Your task to perform on an android device: stop showing notifications on the lock screen Image 0: 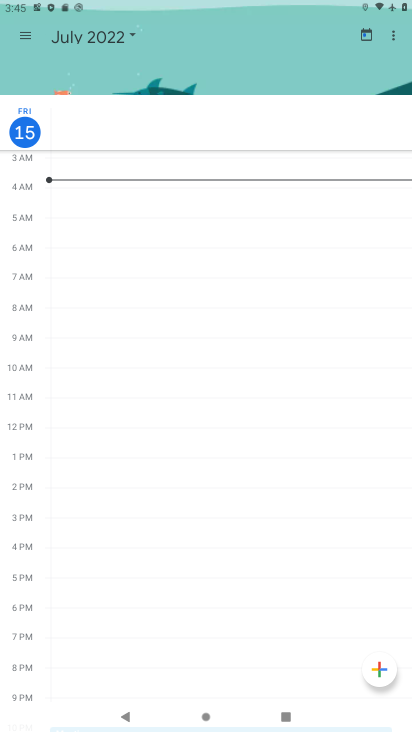
Step 0: drag from (215, 682) to (231, 302)
Your task to perform on an android device: stop showing notifications on the lock screen Image 1: 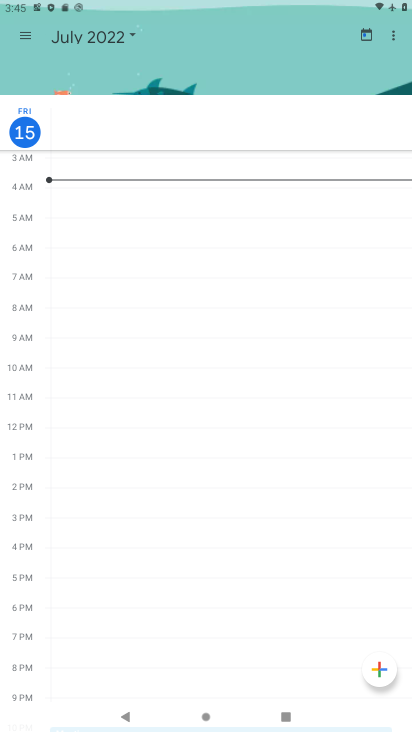
Step 1: press back button
Your task to perform on an android device: stop showing notifications on the lock screen Image 2: 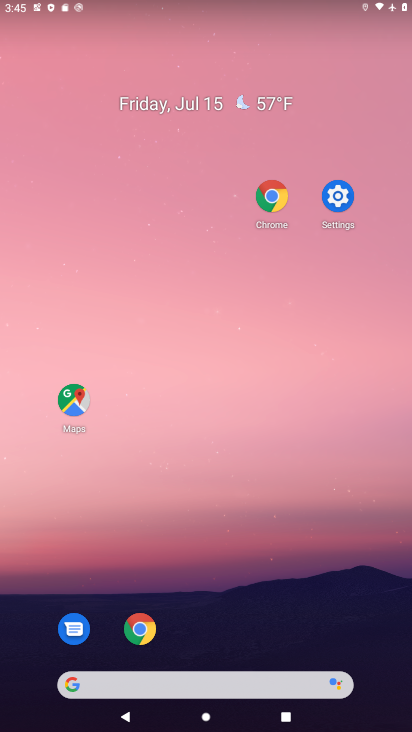
Step 2: click (183, 189)
Your task to perform on an android device: stop showing notifications on the lock screen Image 3: 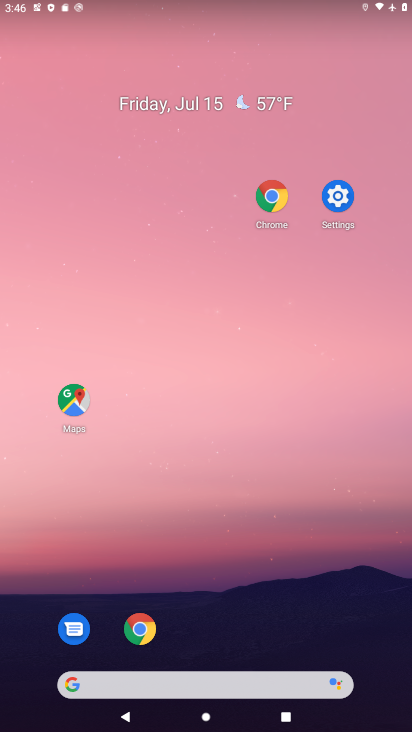
Step 3: drag from (227, 554) to (118, 11)
Your task to perform on an android device: stop showing notifications on the lock screen Image 4: 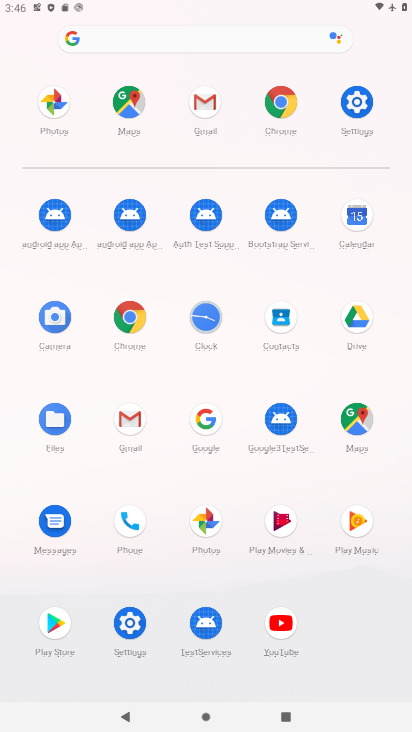
Step 4: click (126, 624)
Your task to perform on an android device: stop showing notifications on the lock screen Image 5: 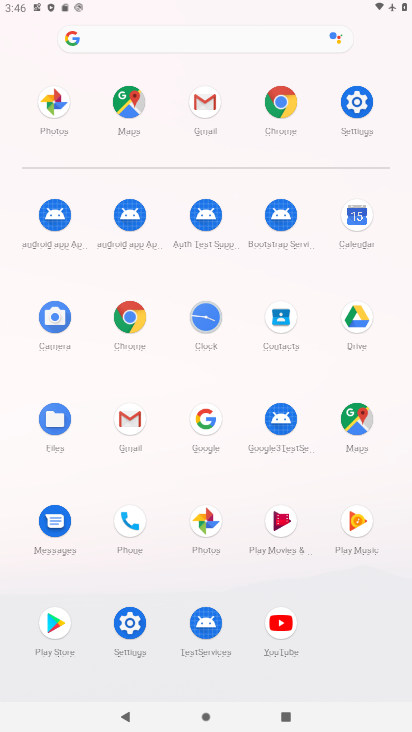
Step 5: click (125, 624)
Your task to perform on an android device: stop showing notifications on the lock screen Image 6: 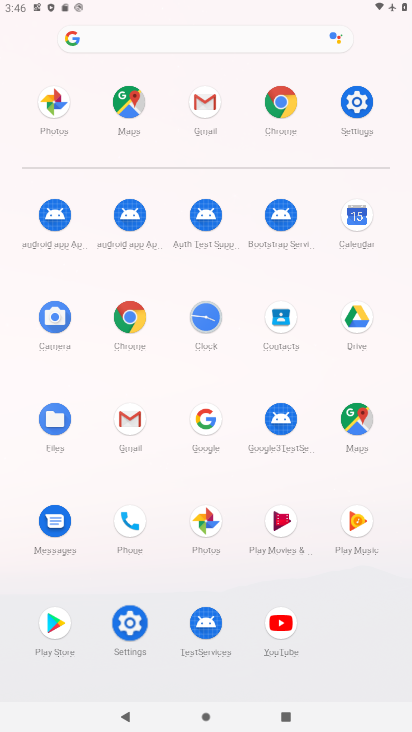
Step 6: click (125, 624)
Your task to perform on an android device: stop showing notifications on the lock screen Image 7: 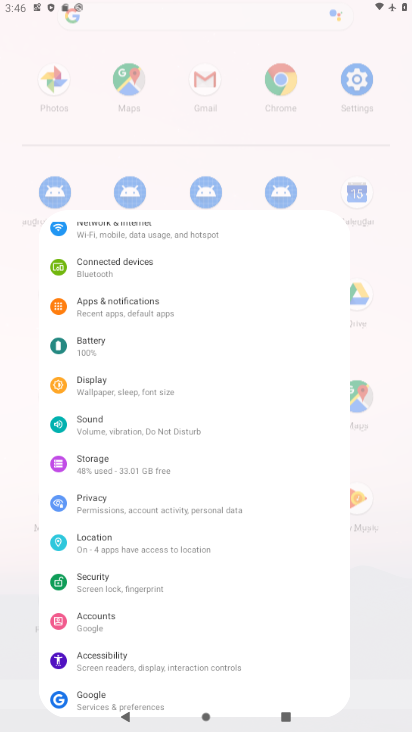
Step 7: click (128, 625)
Your task to perform on an android device: stop showing notifications on the lock screen Image 8: 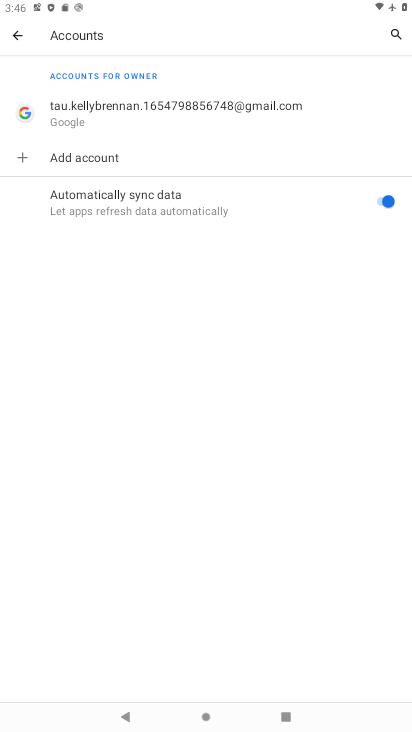
Step 8: click (16, 37)
Your task to perform on an android device: stop showing notifications on the lock screen Image 9: 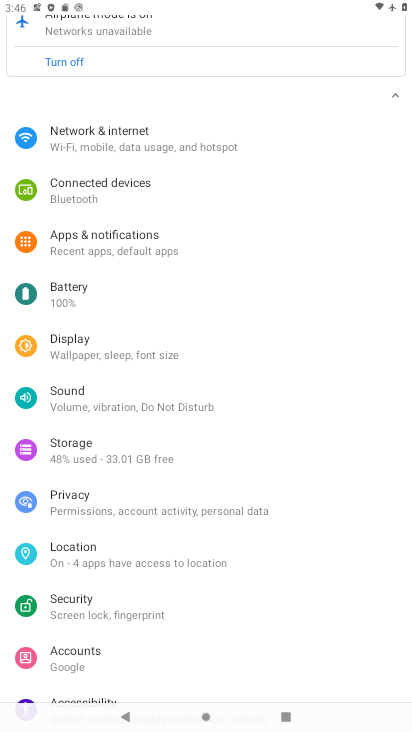
Step 9: click (98, 228)
Your task to perform on an android device: stop showing notifications on the lock screen Image 10: 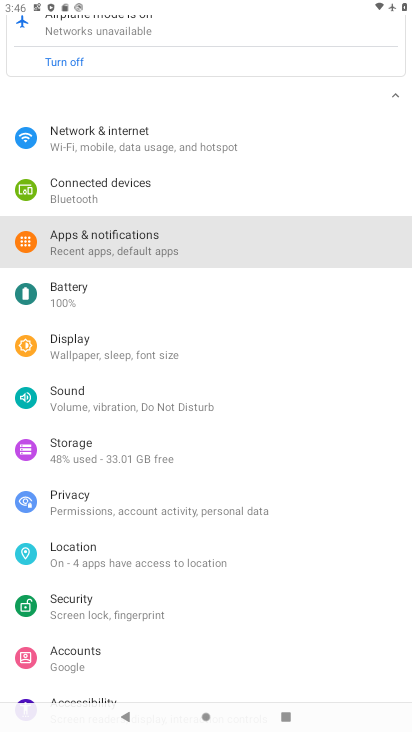
Step 10: click (108, 239)
Your task to perform on an android device: stop showing notifications on the lock screen Image 11: 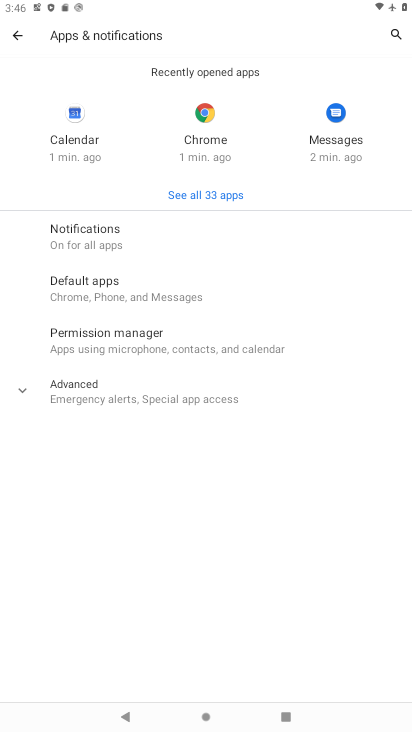
Step 11: click (90, 233)
Your task to perform on an android device: stop showing notifications on the lock screen Image 12: 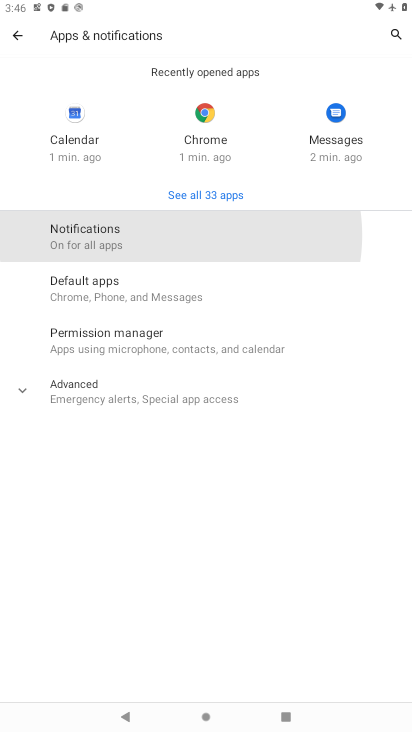
Step 12: click (90, 233)
Your task to perform on an android device: stop showing notifications on the lock screen Image 13: 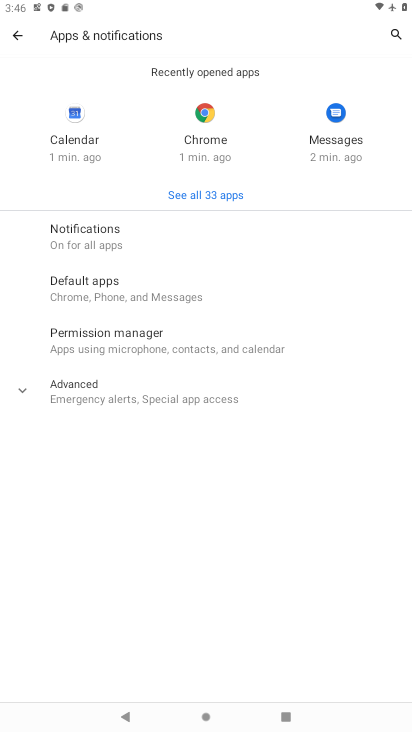
Step 13: click (90, 233)
Your task to perform on an android device: stop showing notifications on the lock screen Image 14: 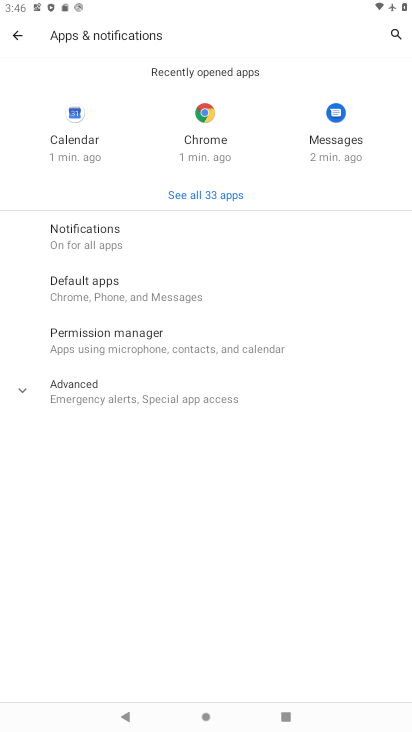
Step 14: click (90, 236)
Your task to perform on an android device: stop showing notifications on the lock screen Image 15: 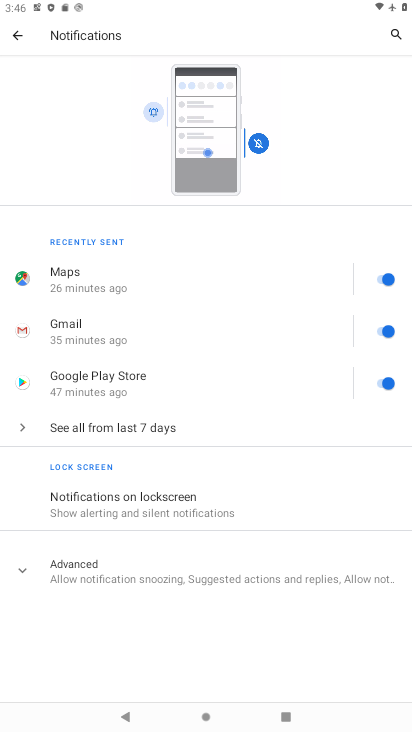
Step 15: click (88, 501)
Your task to perform on an android device: stop showing notifications on the lock screen Image 16: 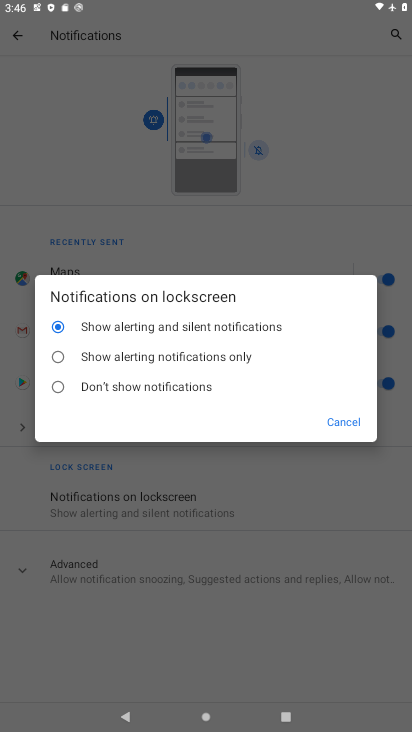
Step 16: click (48, 388)
Your task to perform on an android device: stop showing notifications on the lock screen Image 17: 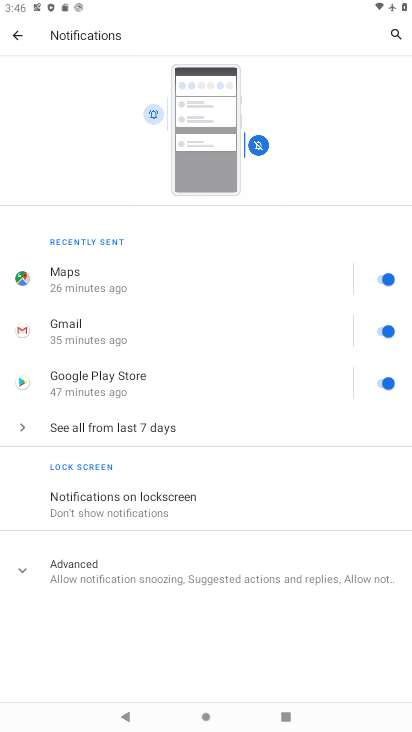
Step 17: task complete